Your task to perform on an android device: stop showing notifications on the lock screen Image 0: 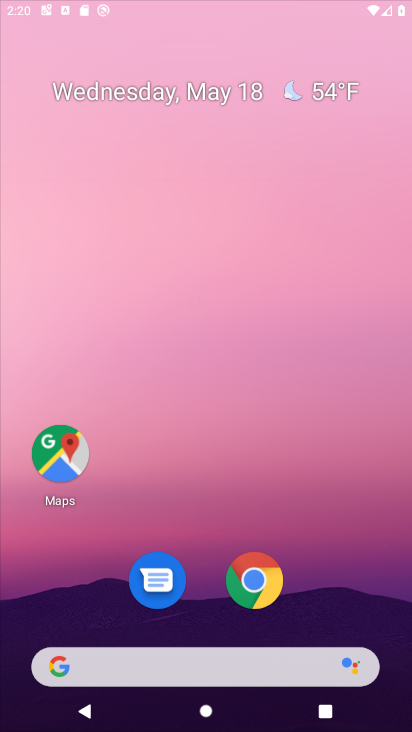
Step 0: click (278, 155)
Your task to perform on an android device: stop showing notifications on the lock screen Image 1: 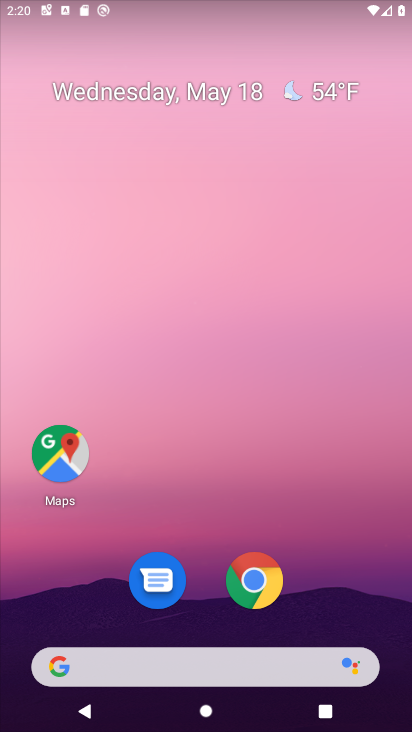
Step 1: drag from (168, 636) to (223, 172)
Your task to perform on an android device: stop showing notifications on the lock screen Image 2: 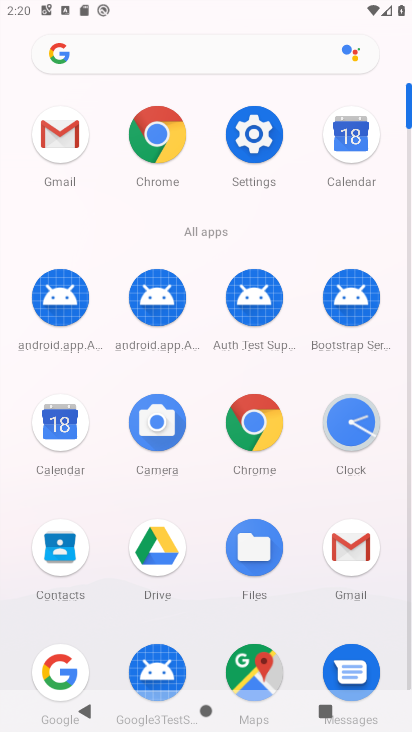
Step 2: click (258, 135)
Your task to perform on an android device: stop showing notifications on the lock screen Image 3: 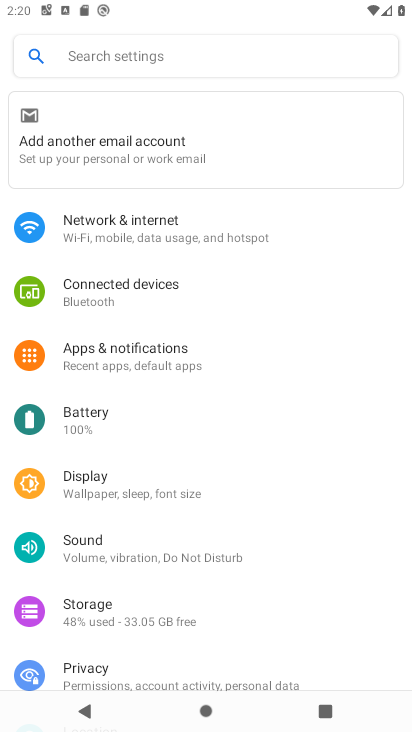
Step 3: click (126, 361)
Your task to perform on an android device: stop showing notifications on the lock screen Image 4: 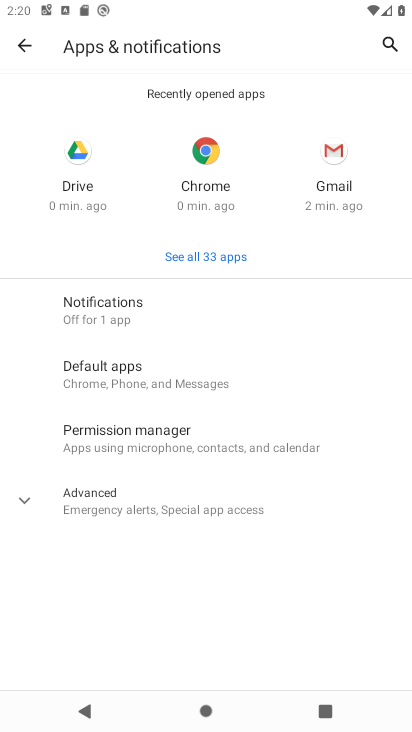
Step 4: click (192, 316)
Your task to perform on an android device: stop showing notifications on the lock screen Image 5: 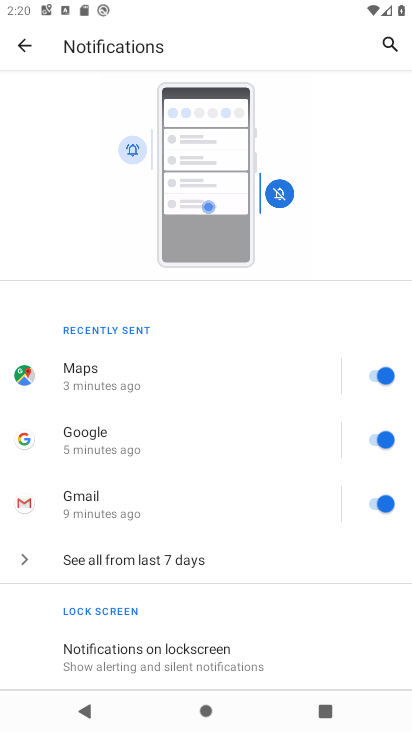
Step 5: drag from (214, 659) to (228, 275)
Your task to perform on an android device: stop showing notifications on the lock screen Image 6: 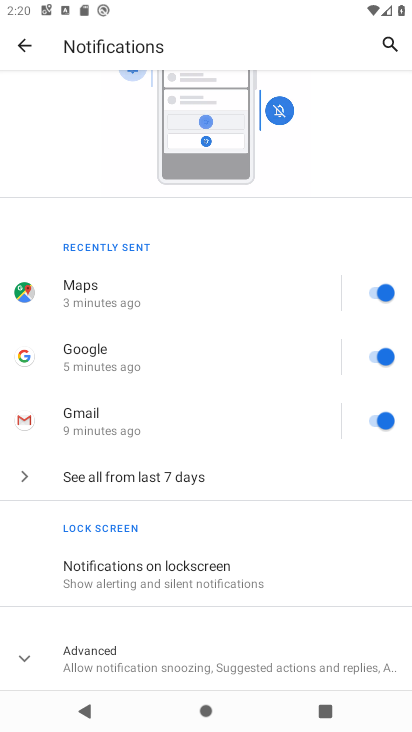
Step 6: click (204, 573)
Your task to perform on an android device: stop showing notifications on the lock screen Image 7: 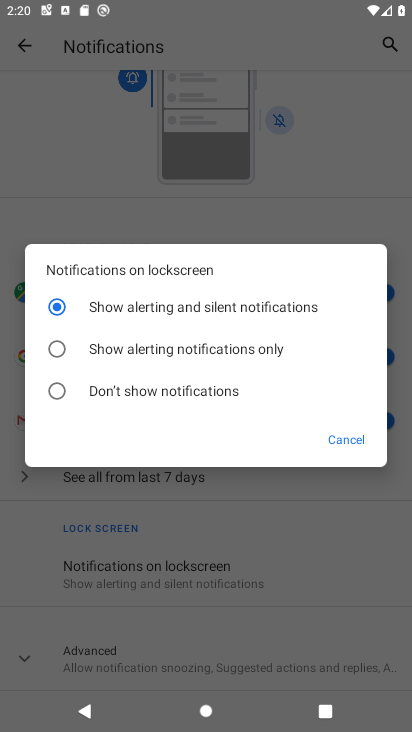
Step 7: drag from (254, 571) to (267, 389)
Your task to perform on an android device: stop showing notifications on the lock screen Image 8: 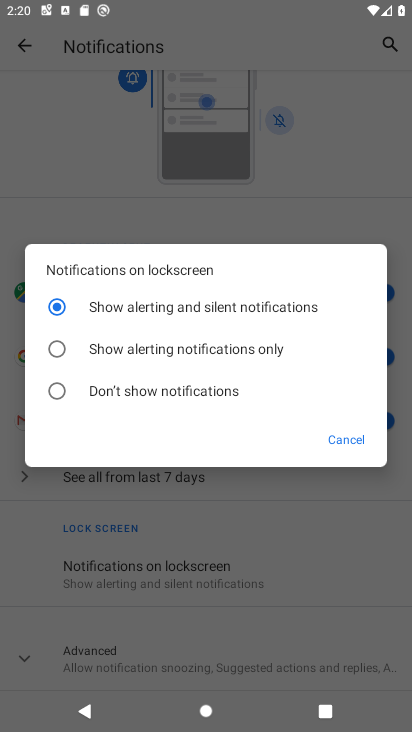
Step 8: click (173, 349)
Your task to perform on an android device: stop showing notifications on the lock screen Image 9: 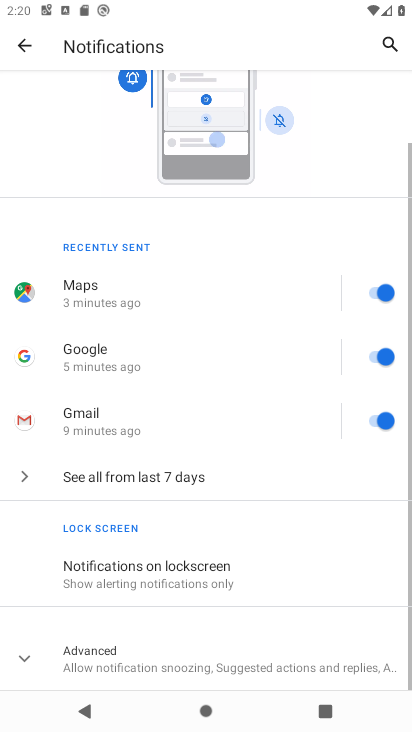
Step 9: task complete